Your task to perform on an android device: Go to internet settings Image 0: 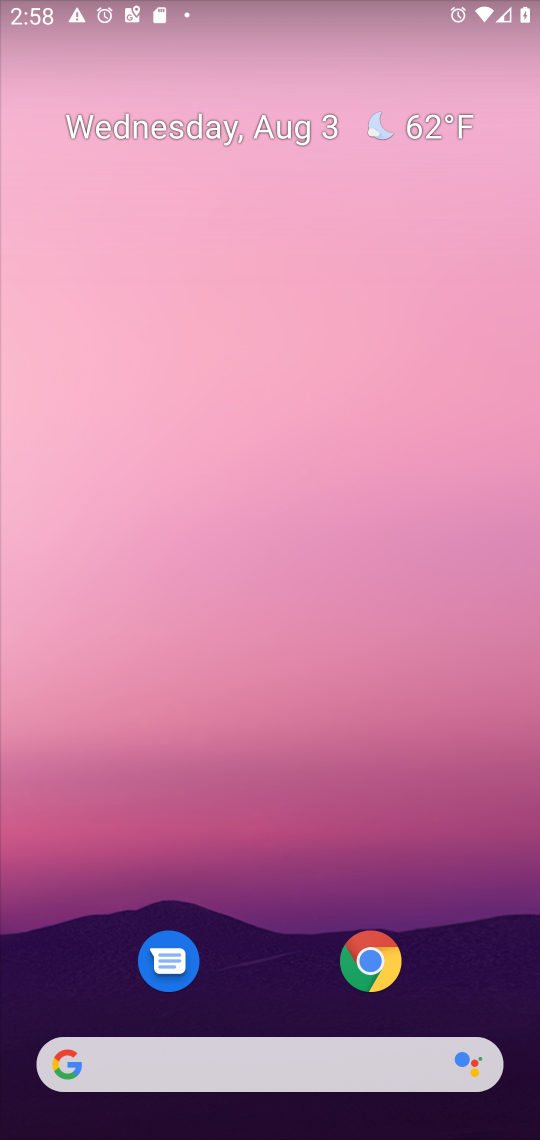
Step 0: drag from (264, 972) to (280, 39)
Your task to perform on an android device: Go to internet settings Image 1: 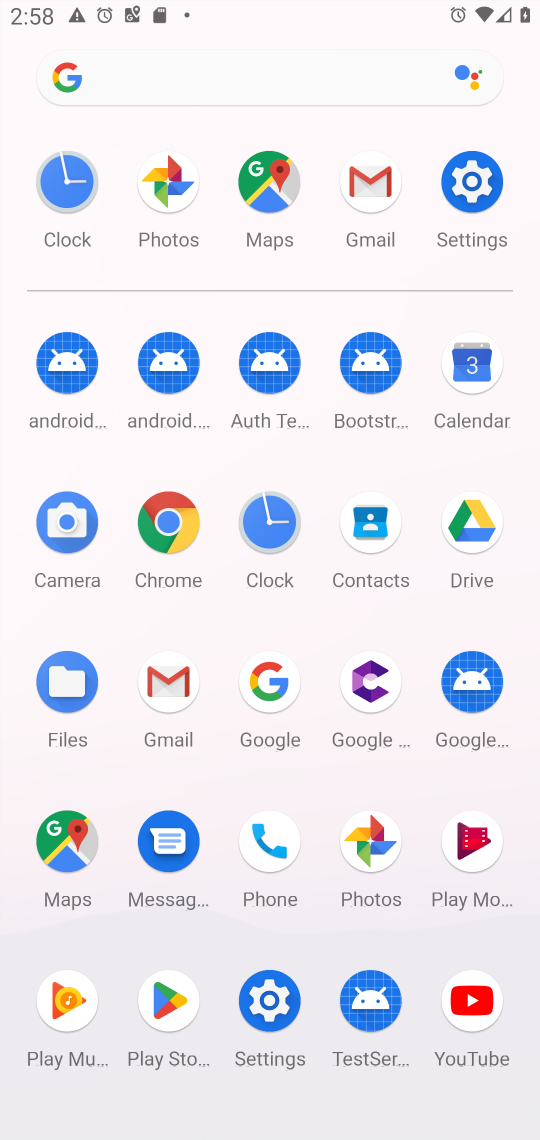
Step 1: click (472, 188)
Your task to perform on an android device: Go to internet settings Image 2: 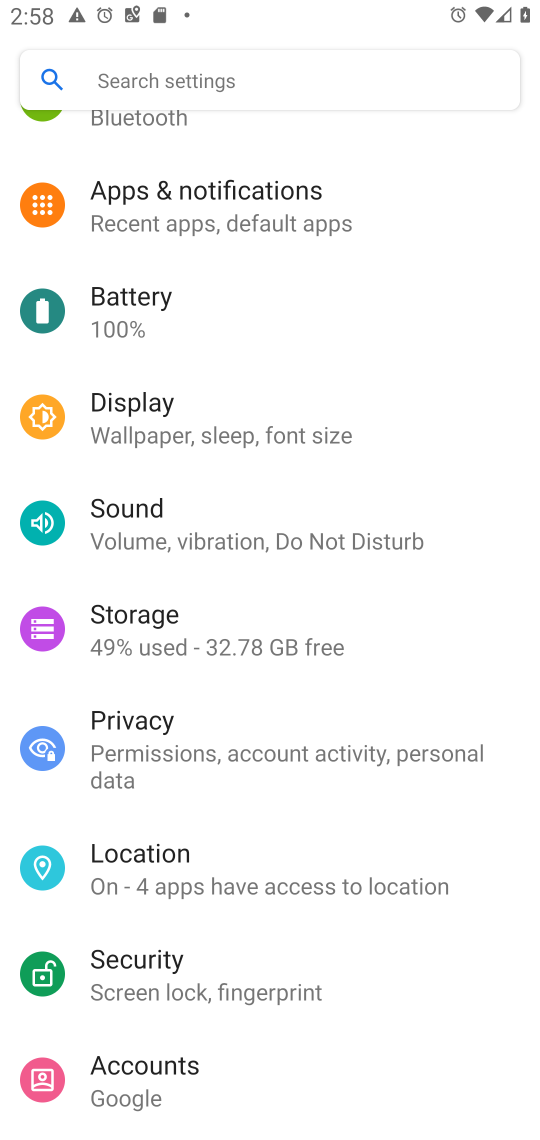
Step 2: drag from (454, 236) to (450, 716)
Your task to perform on an android device: Go to internet settings Image 3: 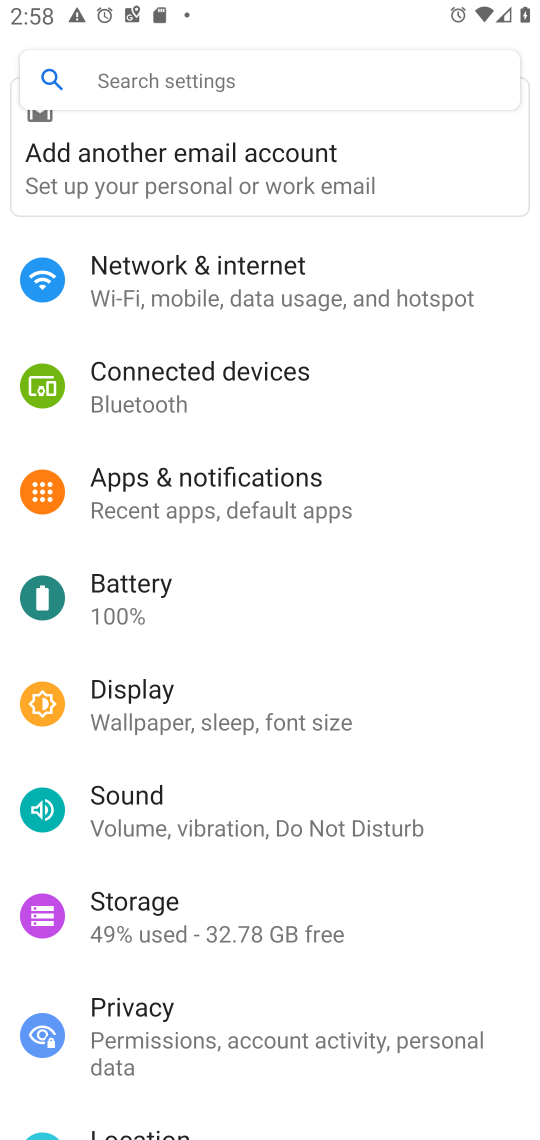
Step 3: click (164, 293)
Your task to perform on an android device: Go to internet settings Image 4: 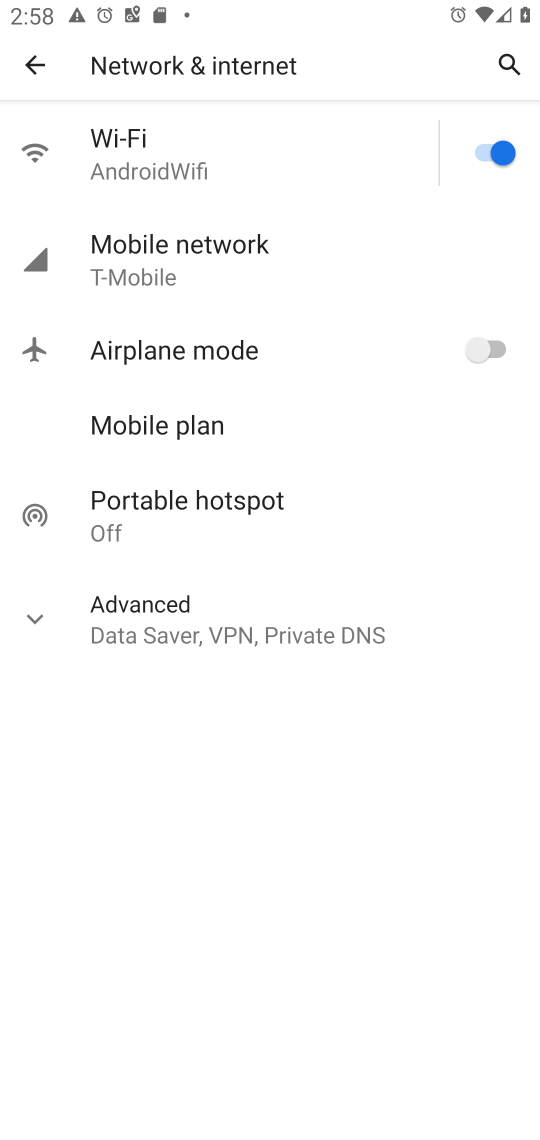
Step 4: click (40, 631)
Your task to perform on an android device: Go to internet settings Image 5: 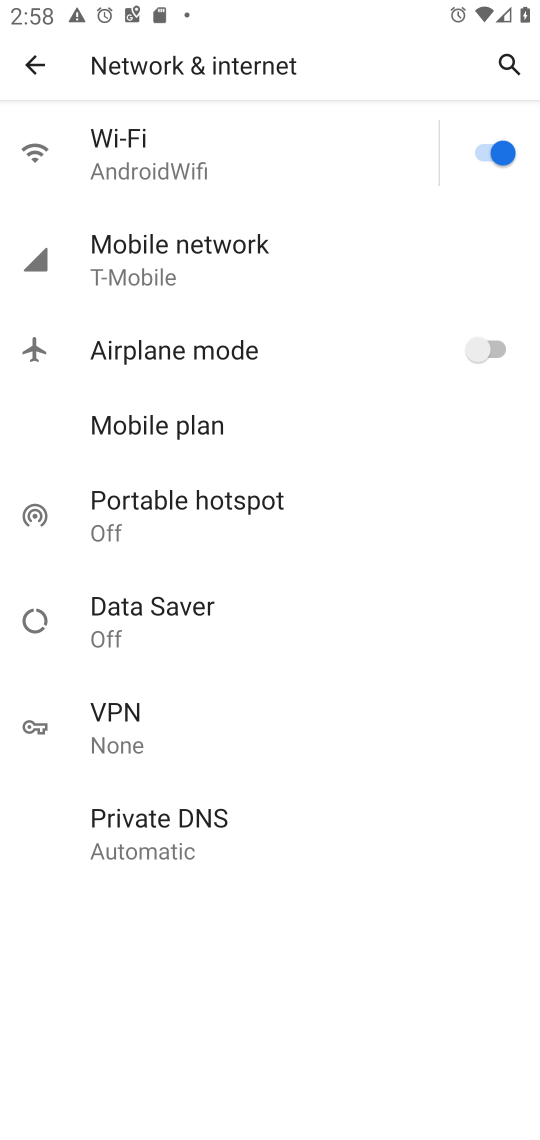
Step 5: task complete